Your task to perform on an android device: Go to network settings Image 0: 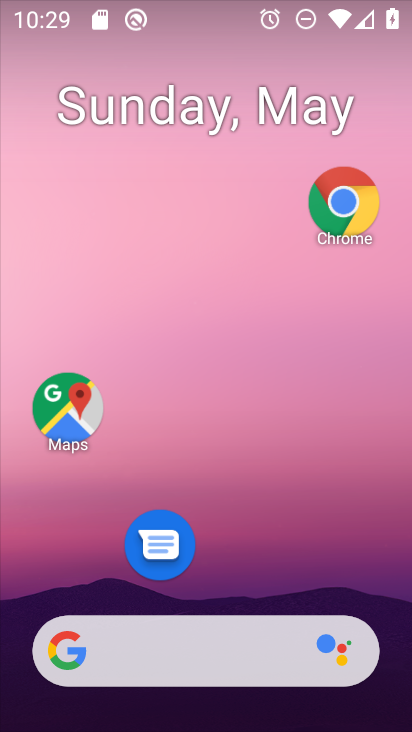
Step 0: drag from (289, 560) to (284, 2)
Your task to perform on an android device: Go to network settings Image 1: 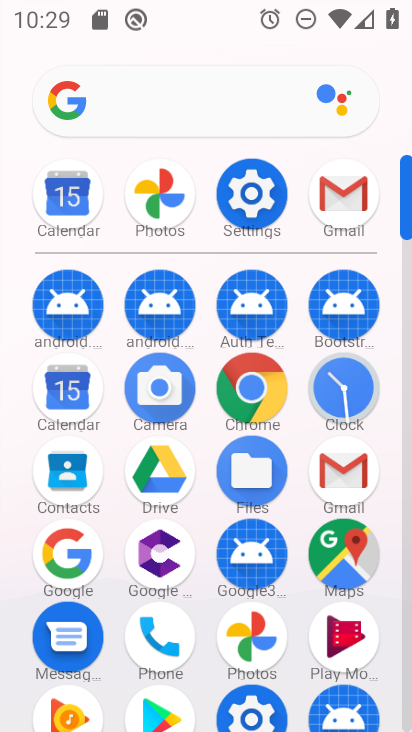
Step 1: click (252, 192)
Your task to perform on an android device: Go to network settings Image 2: 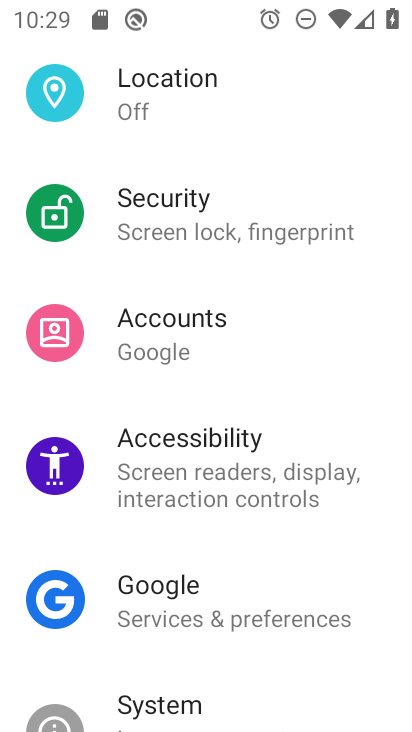
Step 2: drag from (249, 163) to (284, 427)
Your task to perform on an android device: Go to network settings Image 3: 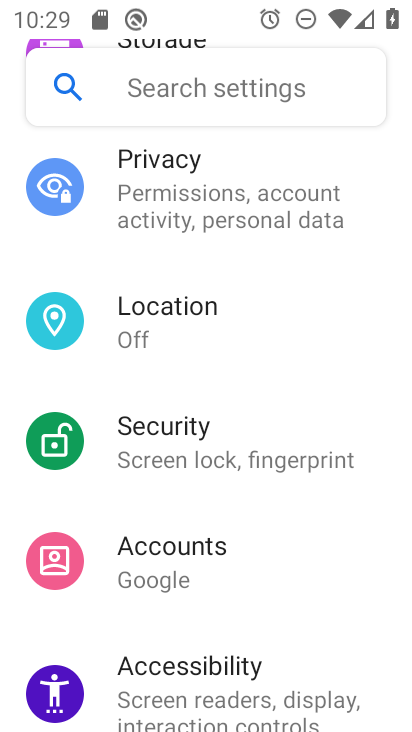
Step 3: drag from (274, 223) to (322, 466)
Your task to perform on an android device: Go to network settings Image 4: 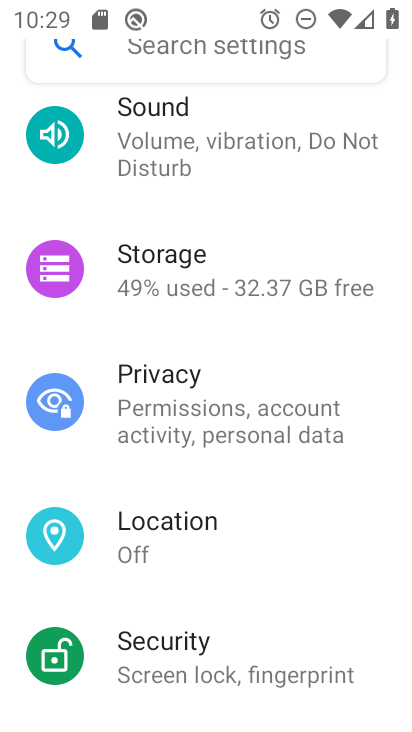
Step 4: drag from (321, 254) to (313, 531)
Your task to perform on an android device: Go to network settings Image 5: 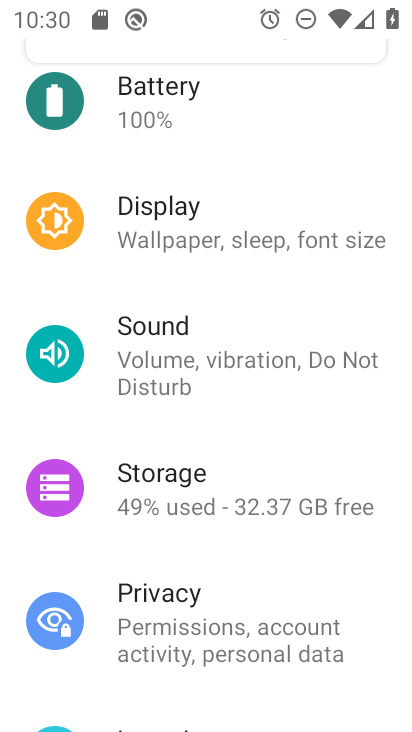
Step 5: drag from (313, 190) to (304, 484)
Your task to perform on an android device: Go to network settings Image 6: 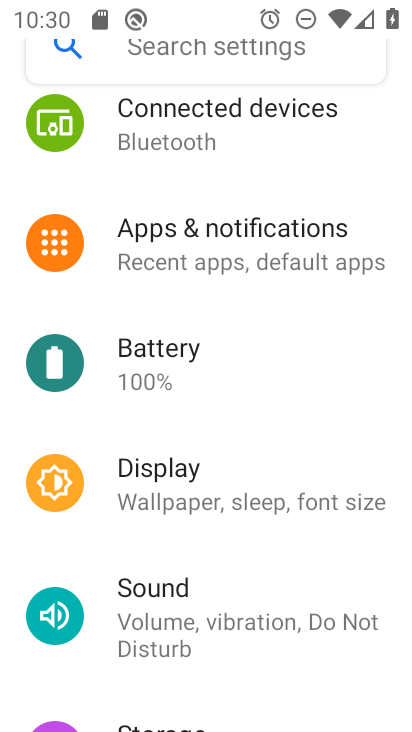
Step 6: drag from (260, 230) to (257, 503)
Your task to perform on an android device: Go to network settings Image 7: 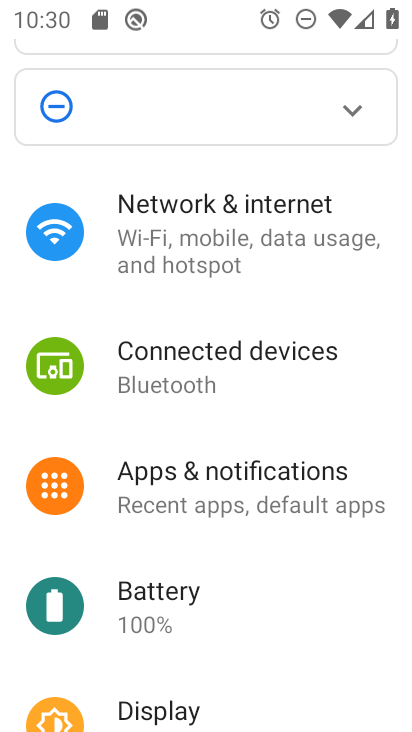
Step 7: click (203, 243)
Your task to perform on an android device: Go to network settings Image 8: 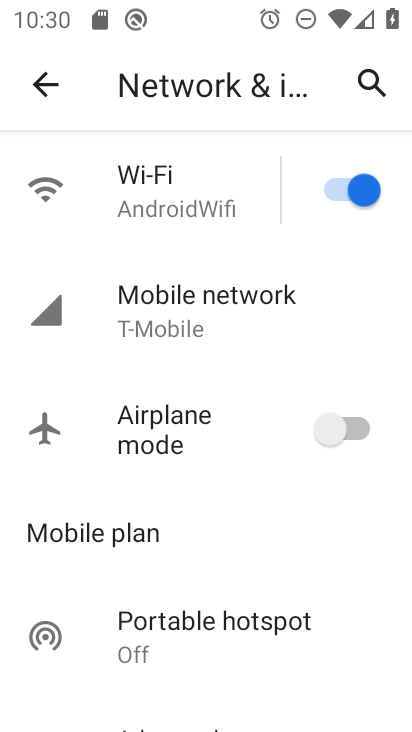
Step 8: click (215, 315)
Your task to perform on an android device: Go to network settings Image 9: 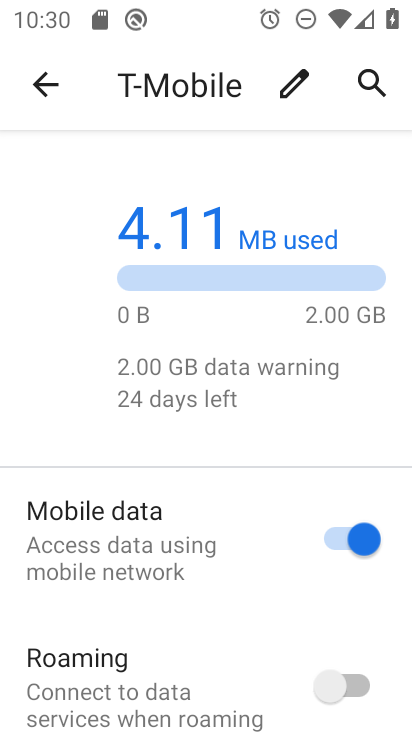
Step 9: task complete